Your task to perform on an android device: Open the phone app and click the voicemail tab. Image 0: 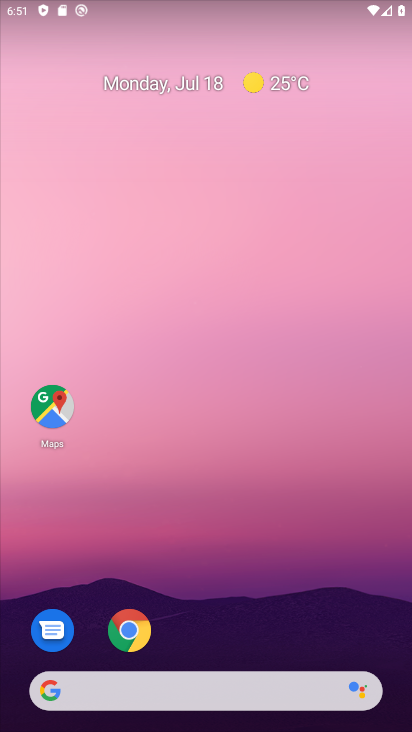
Step 0: press home button
Your task to perform on an android device: Open the phone app and click the voicemail tab. Image 1: 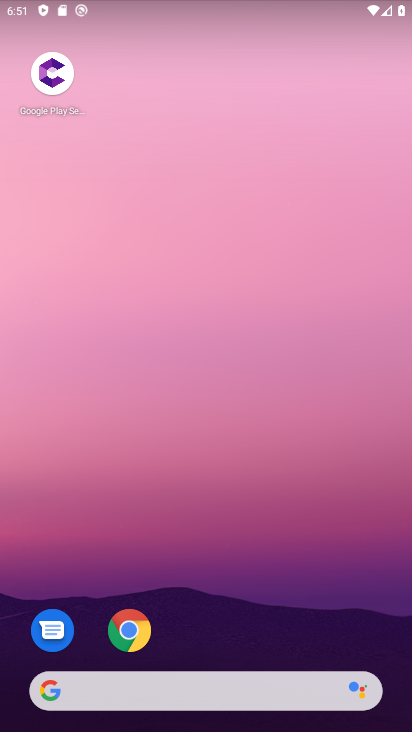
Step 1: drag from (233, 712) to (327, 191)
Your task to perform on an android device: Open the phone app and click the voicemail tab. Image 2: 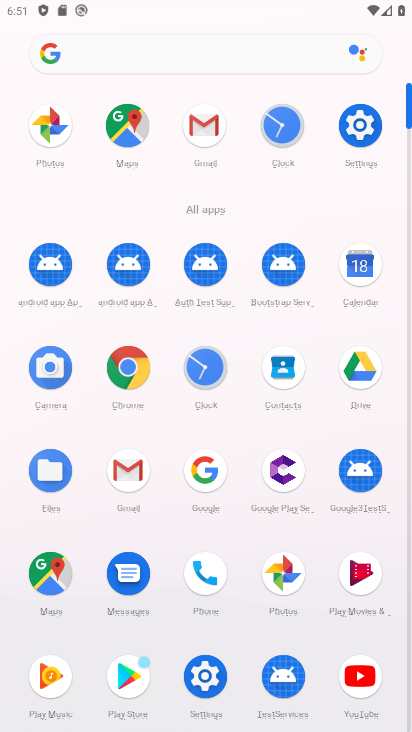
Step 2: click (207, 577)
Your task to perform on an android device: Open the phone app and click the voicemail tab. Image 3: 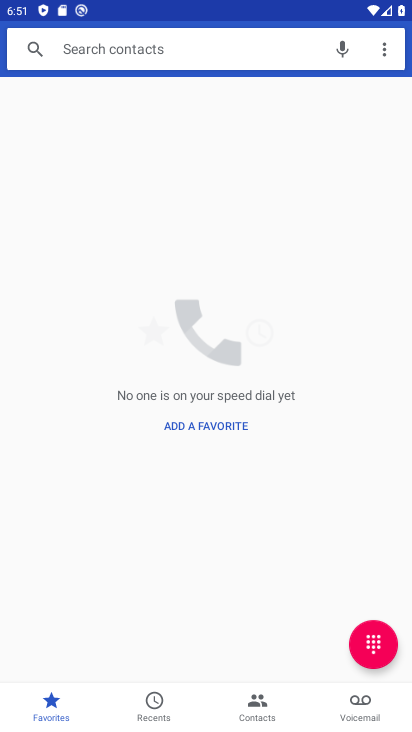
Step 3: click (336, 715)
Your task to perform on an android device: Open the phone app and click the voicemail tab. Image 4: 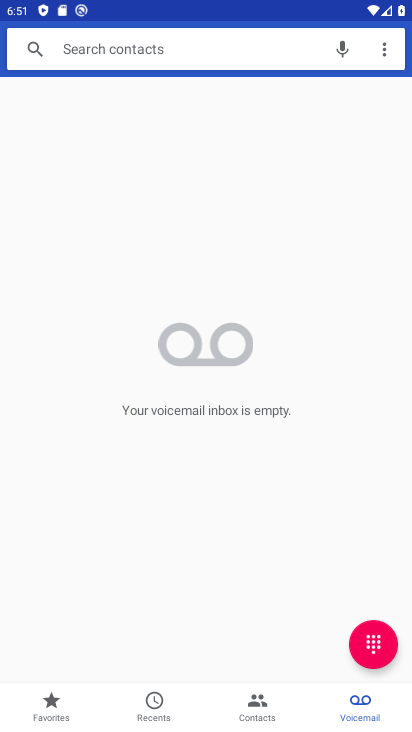
Step 4: task complete